Your task to perform on an android device: Open display settings Image 0: 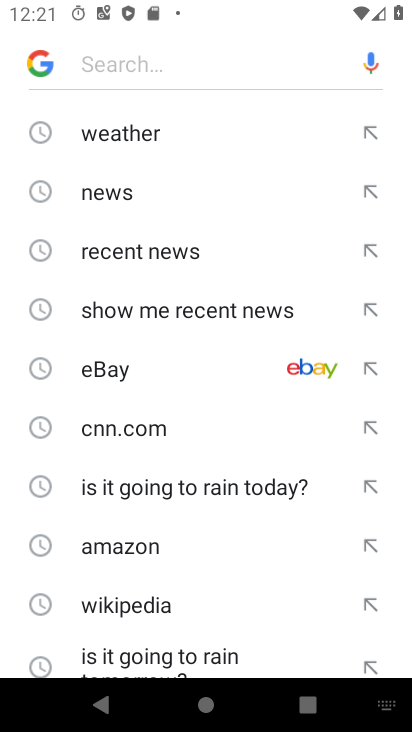
Step 0: press home button
Your task to perform on an android device: Open display settings Image 1: 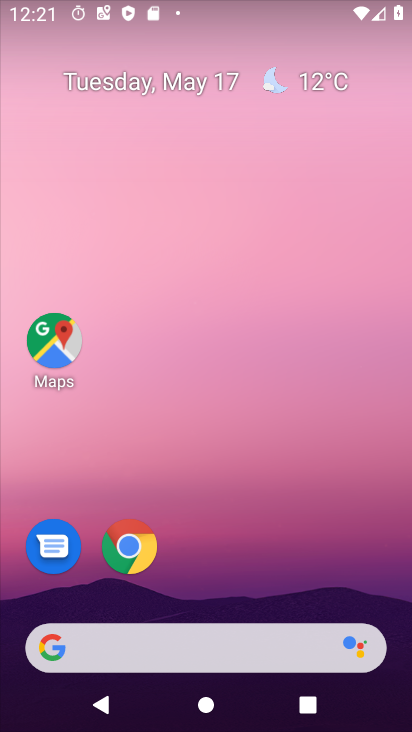
Step 1: drag from (179, 645) to (303, 106)
Your task to perform on an android device: Open display settings Image 2: 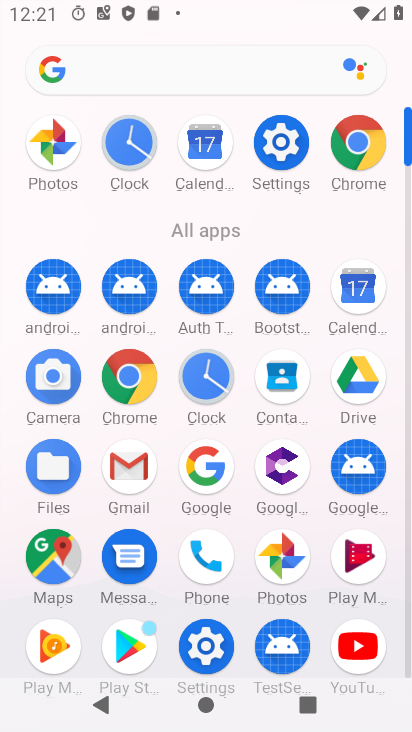
Step 2: click (272, 191)
Your task to perform on an android device: Open display settings Image 3: 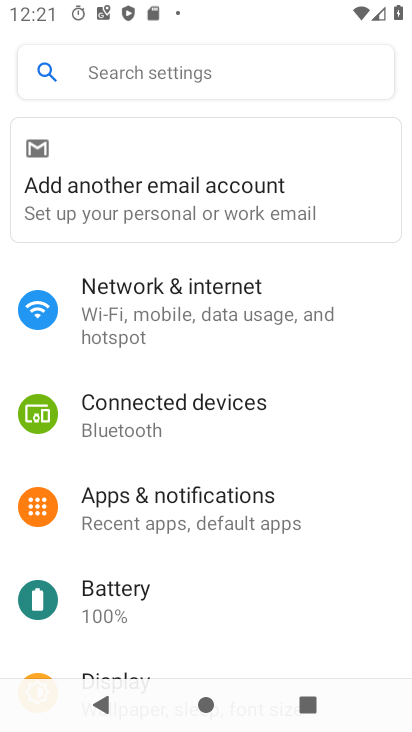
Step 3: drag from (284, 584) to (307, 183)
Your task to perform on an android device: Open display settings Image 4: 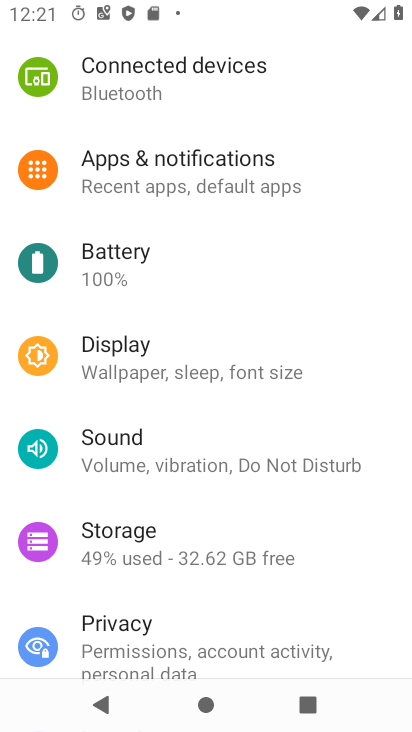
Step 4: click (181, 361)
Your task to perform on an android device: Open display settings Image 5: 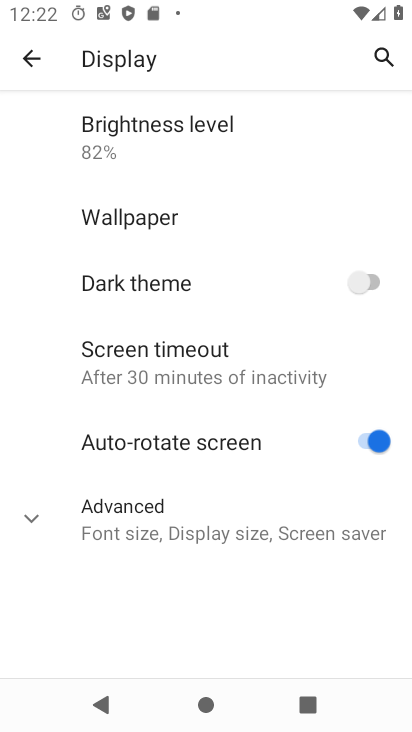
Step 5: task complete